Your task to perform on an android device: check the backup settings in the google photos Image 0: 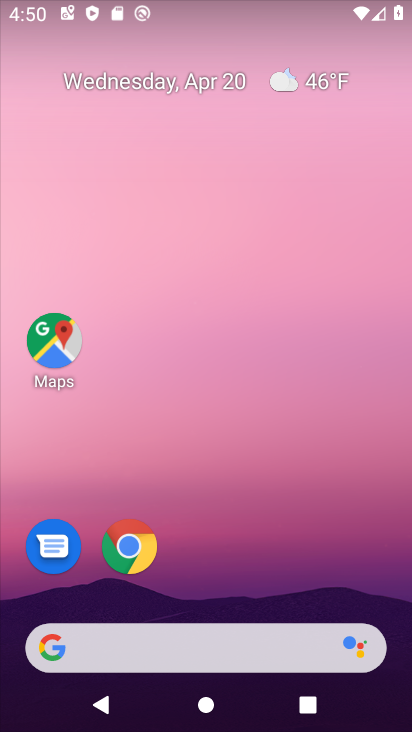
Step 0: drag from (340, 491) to (370, 53)
Your task to perform on an android device: check the backup settings in the google photos Image 1: 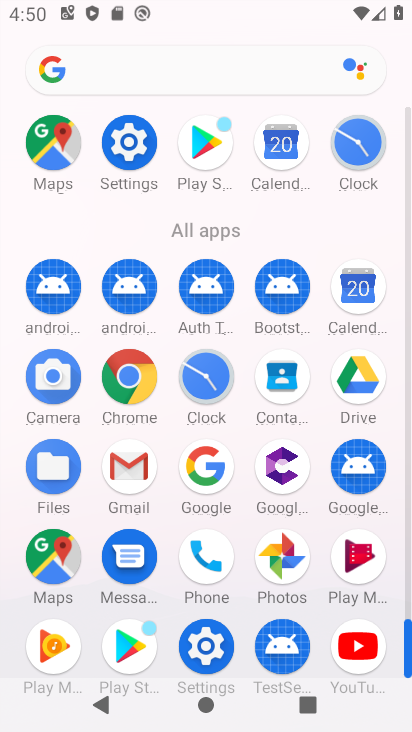
Step 1: drag from (386, 552) to (345, 291)
Your task to perform on an android device: check the backup settings in the google photos Image 2: 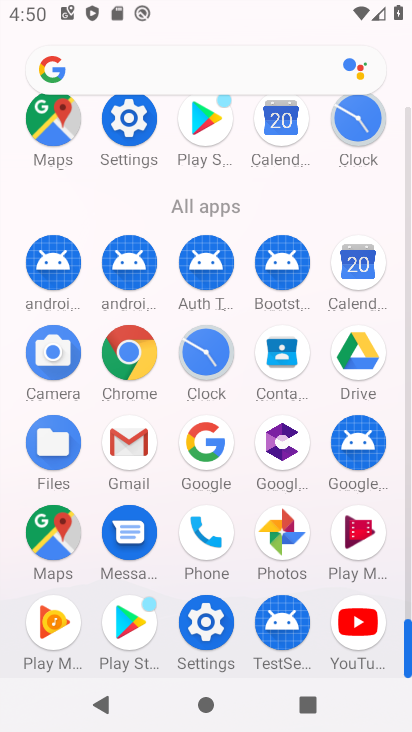
Step 2: click (282, 528)
Your task to perform on an android device: check the backup settings in the google photos Image 3: 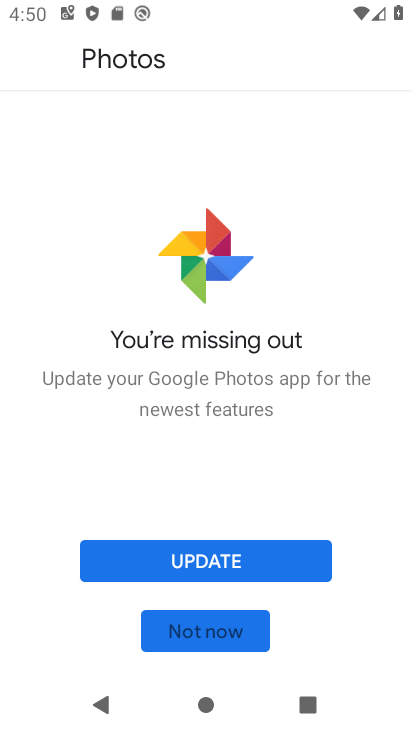
Step 3: click (210, 569)
Your task to perform on an android device: check the backup settings in the google photos Image 4: 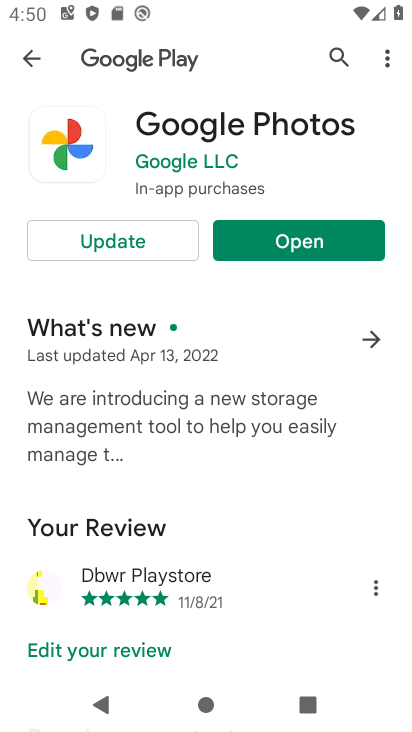
Step 4: click (146, 244)
Your task to perform on an android device: check the backup settings in the google photos Image 5: 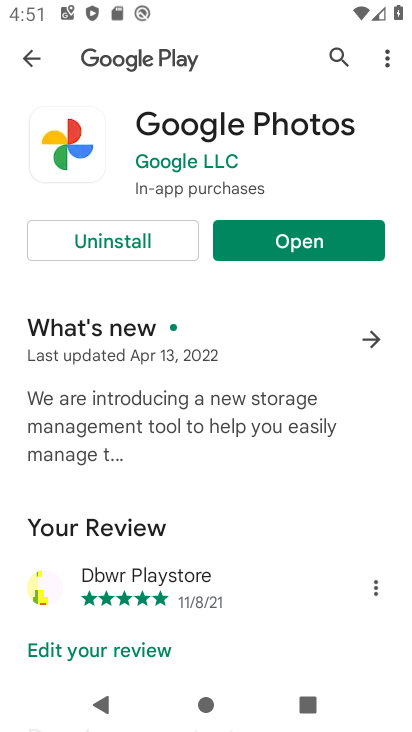
Step 5: click (272, 248)
Your task to perform on an android device: check the backup settings in the google photos Image 6: 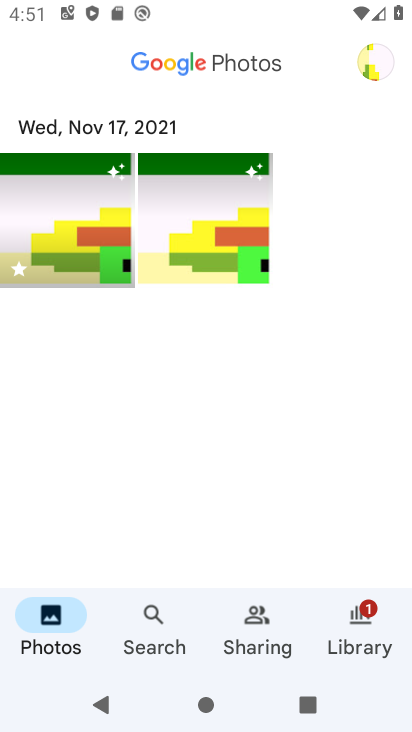
Step 6: task complete